Your task to perform on an android device: allow notifications from all sites in the chrome app Image 0: 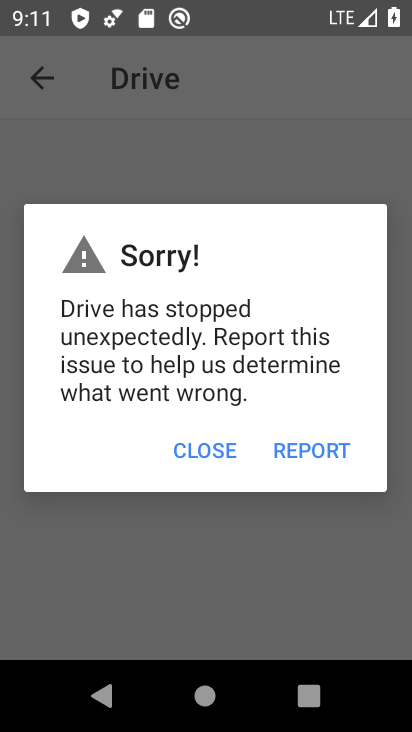
Step 0: press home button
Your task to perform on an android device: allow notifications from all sites in the chrome app Image 1: 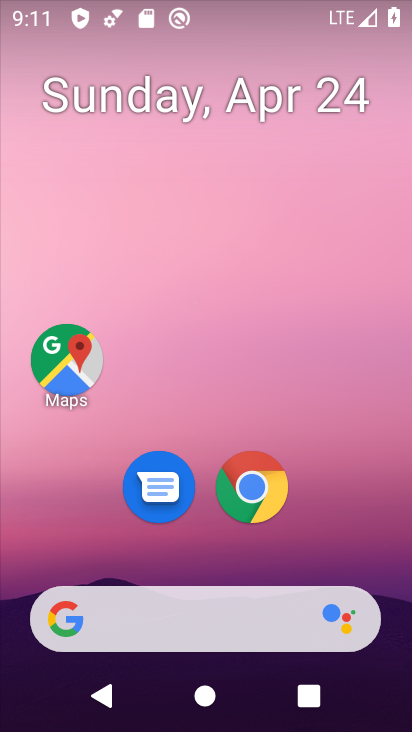
Step 1: drag from (350, 527) to (330, 9)
Your task to perform on an android device: allow notifications from all sites in the chrome app Image 2: 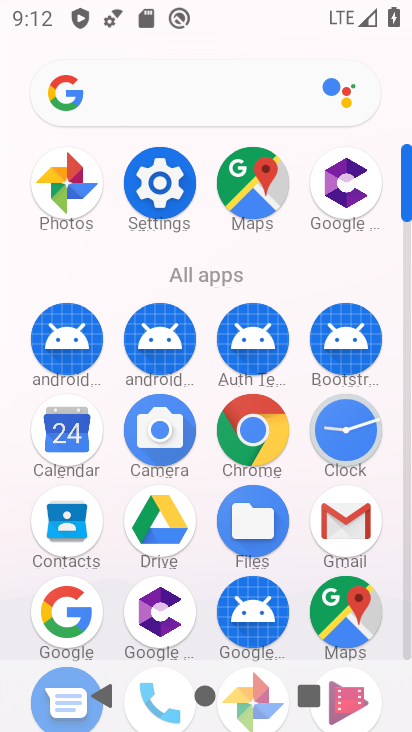
Step 2: click (264, 432)
Your task to perform on an android device: allow notifications from all sites in the chrome app Image 3: 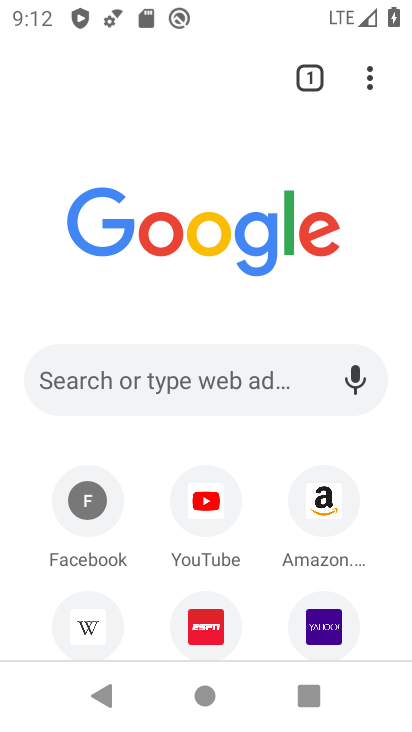
Step 3: drag from (363, 74) to (130, 556)
Your task to perform on an android device: allow notifications from all sites in the chrome app Image 4: 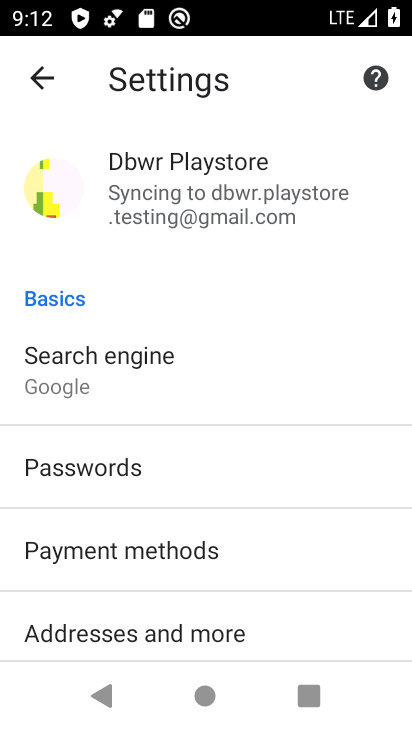
Step 4: drag from (221, 579) to (221, 156)
Your task to perform on an android device: allow notifications from all sites in the chrome app Image 5: 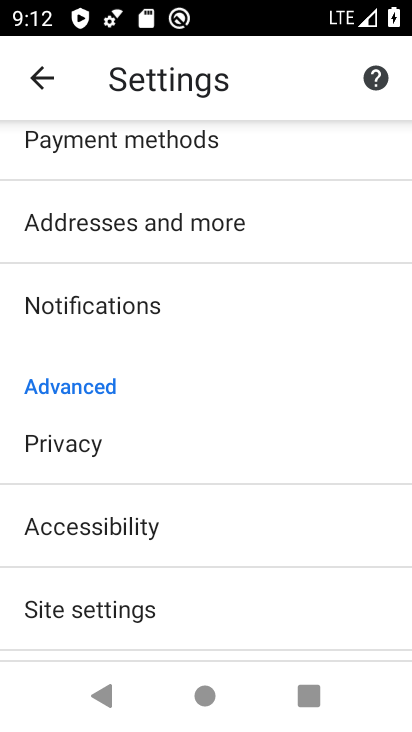
Step 5: click (225, 592)
Your task to perform on an android device: allow notifications from all sites in the chrome app Image 6: 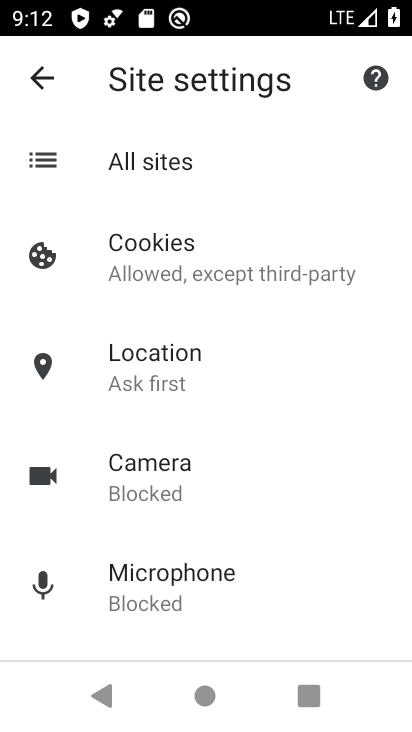
Step 6: click (215, 162)
Your task to perform on an android device: allow notifications from all sites in the chrome app Image 7: 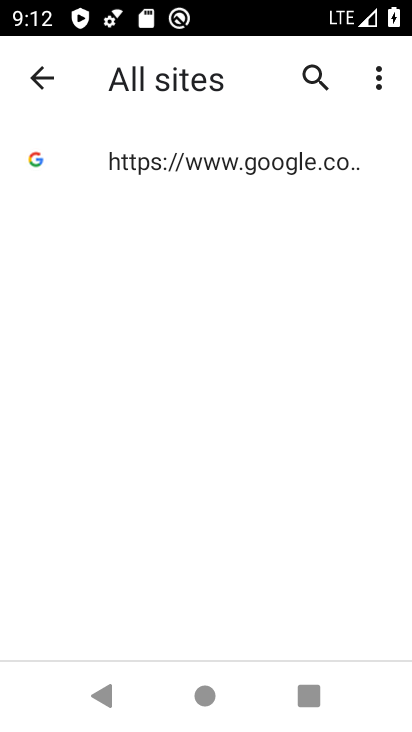
Step 7: click (207, 162)
Your task to perform on an android device: allow notifications from all sites in the chrome app Image 8: 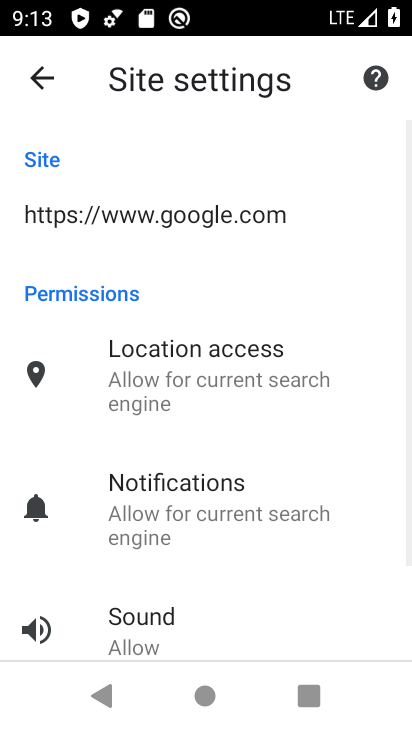
Step 8: click (213, 487)
Your task to perform on an android device: allow notifications from all sites in the chrome app Image 9: 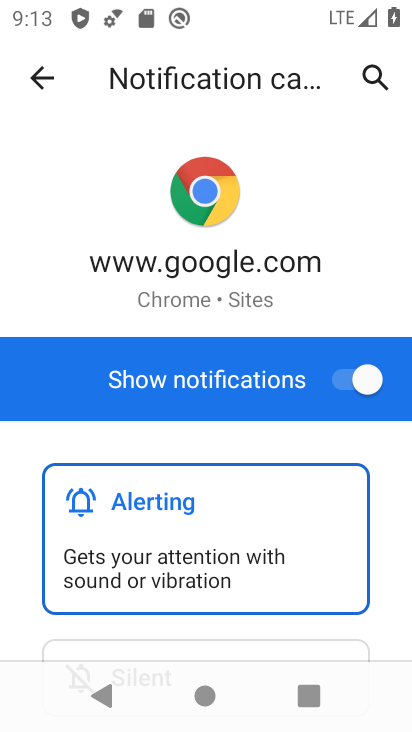
Step 9: task complete